Your task to perform on an android device: search for starred emails in the gmail app Image 0: 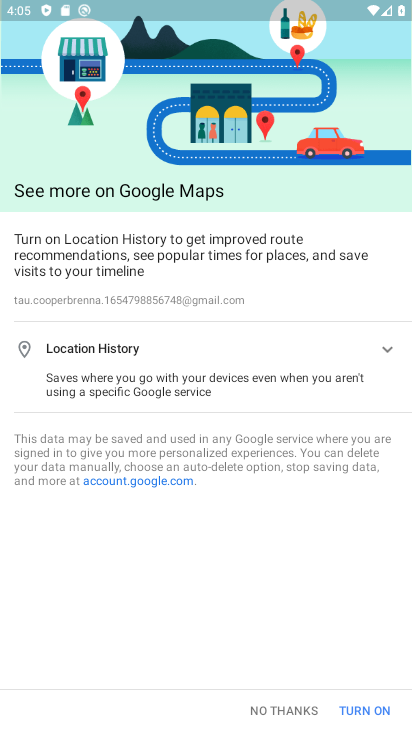
Step 0: click (279, 715)
Your task to perform on an android device: search for starred emails in the gmail app Image 1: 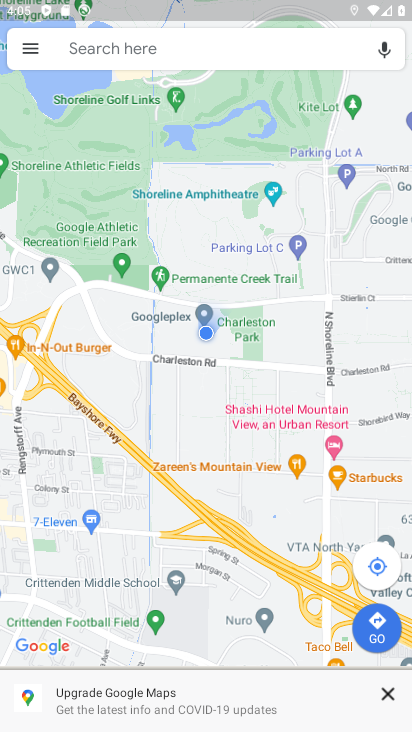
Step 1: press home button
Your task to perform on an android device: search for starred emails in the gmail app Image 2: 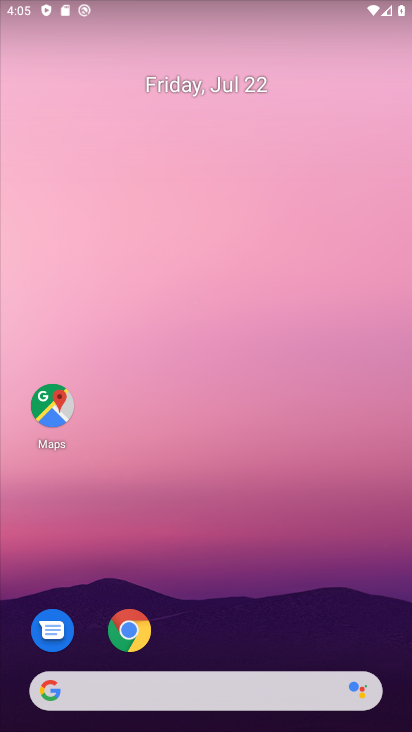
Step 2: drag from (226, 149) to (226, 75)
Your task to perform on an android device: search for starred emails in the gmail app Image 3: 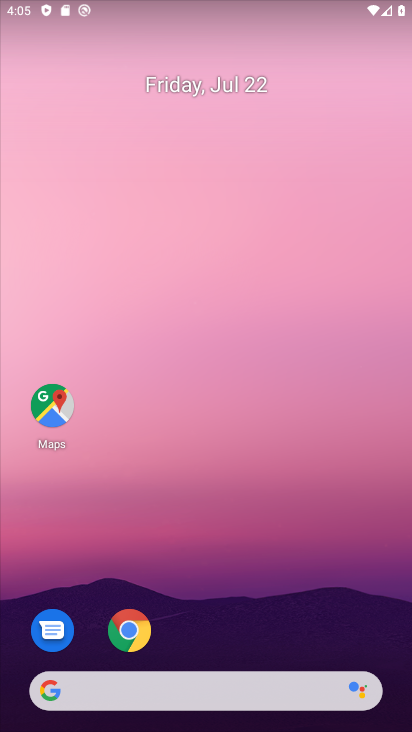
Step 3: drag from (207, 604) to (207, 116)
Your task to perform on an android device: search for starred emails in the gmail app Image 4: 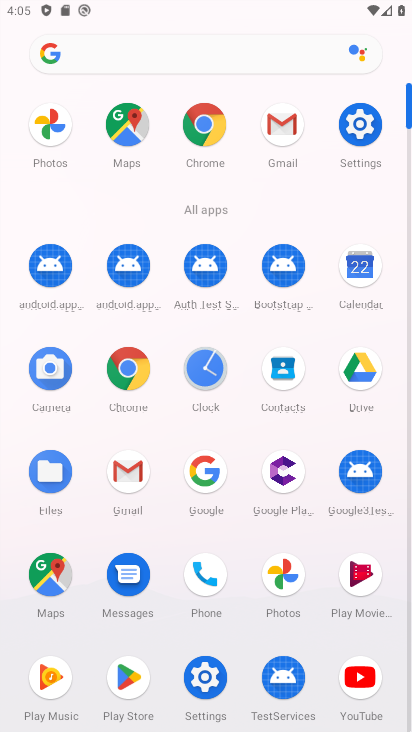
Step 4: click (129, 505)
Your task to perform on an android device: search for starred emails in the gmail app Image 5: 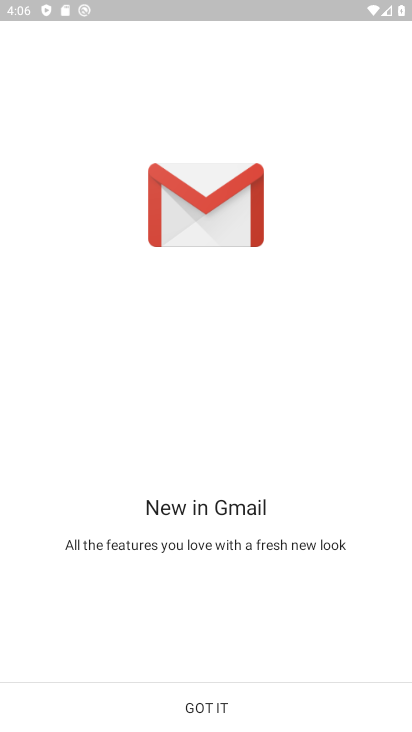
Step 5: click (206, 715)
Your task to perform on an android device: search for starred emails in the gmail app Image 6: 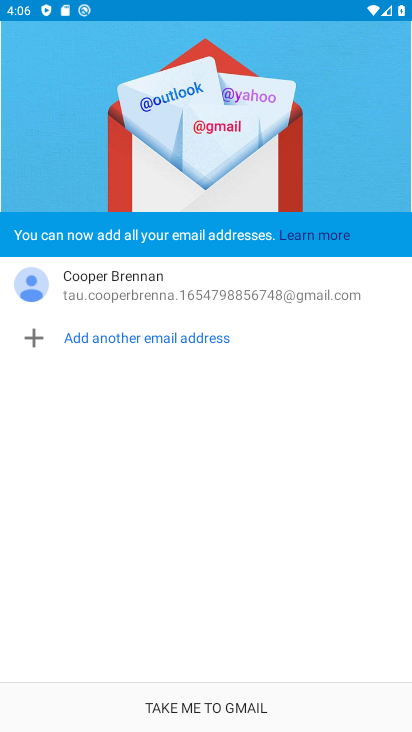
Step 6: click (206, 715)
Your task to perform on an android device: search for starred emails in the gmail app Image 7: 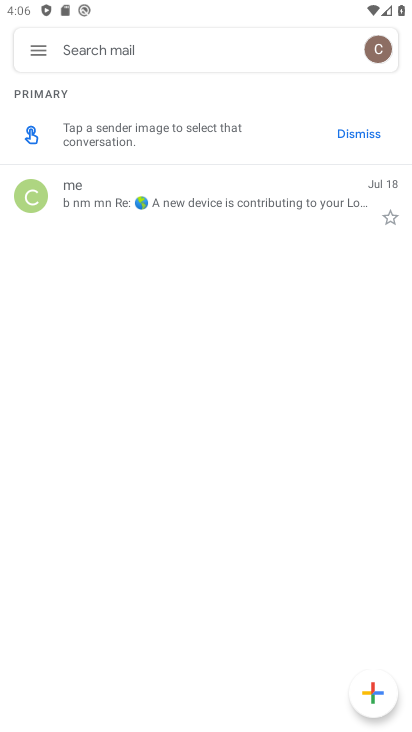
Step 7: click (35, 48)
Your task to perform on an android device: search for starred emails in the gmail app Image 8: 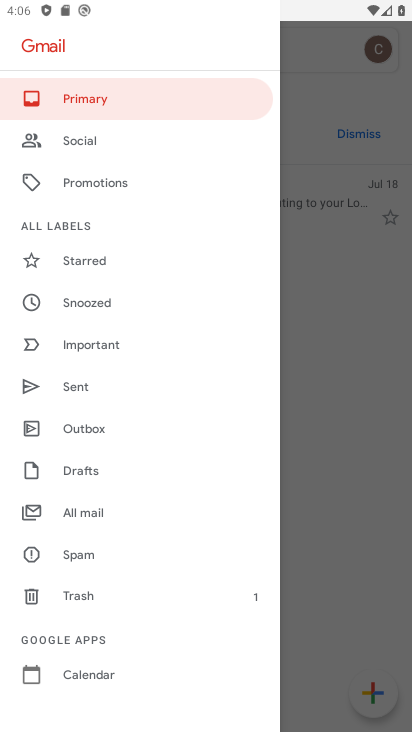
Step 8: click (109, 261)
Your task to perform on an android device: search for starred emails in the gmail app Image 9: 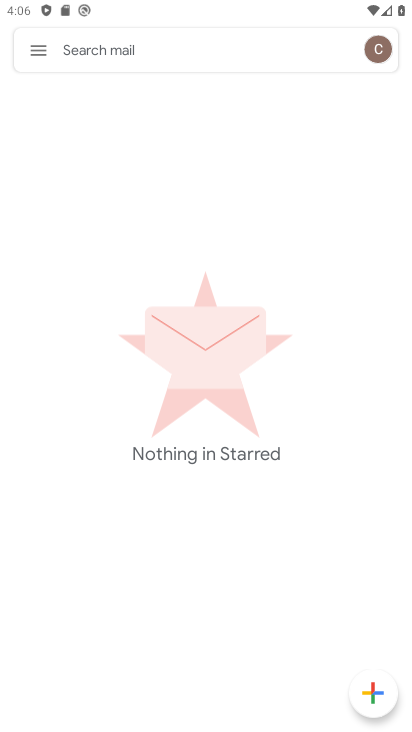
Step 9: task complete